Your task to perform on an android device: check battery use Image 0: 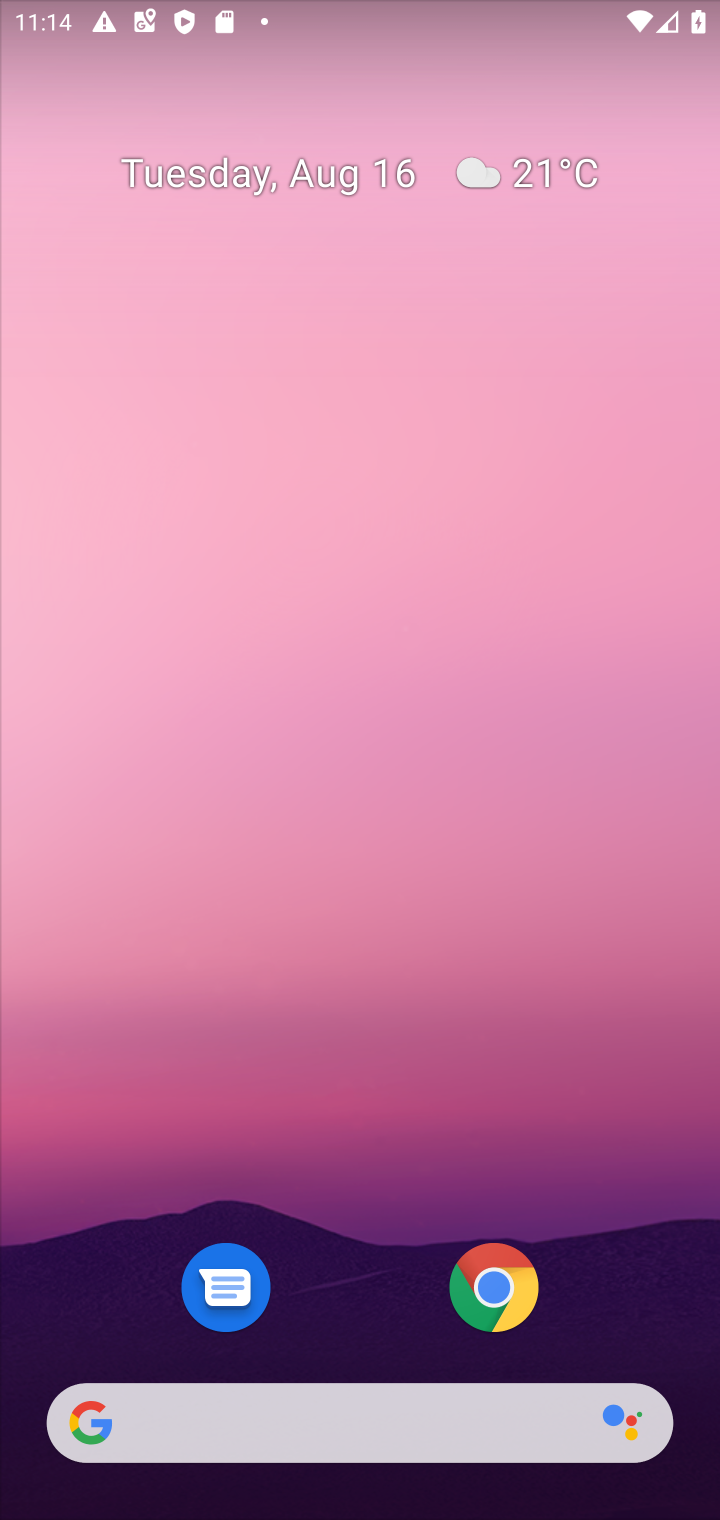
Step 0: drag from (633, 957) to (596, 270)
Your task to perform on an android device: check battery use Image 1: 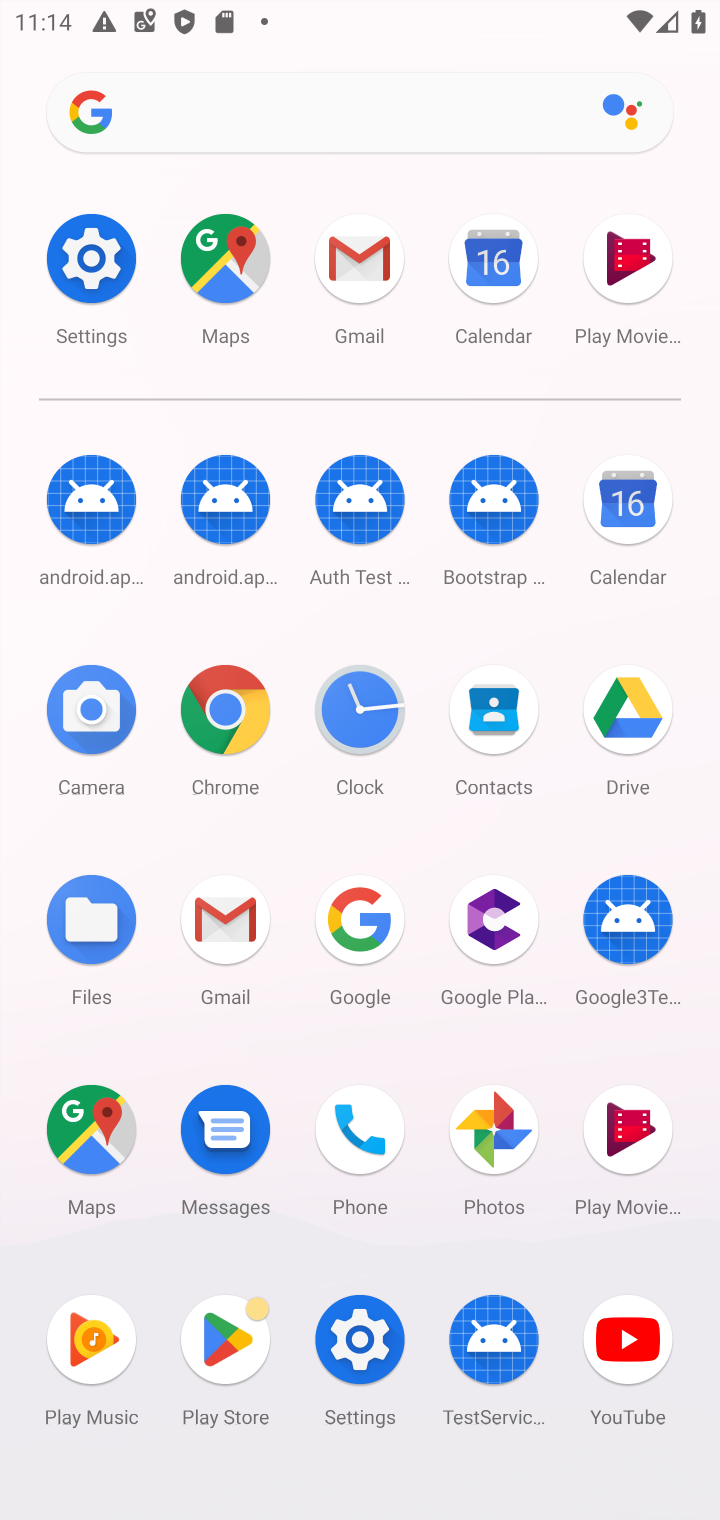
Step 1: click (361, 1344)
Your task to perform on an android device: check battery use Image 2: 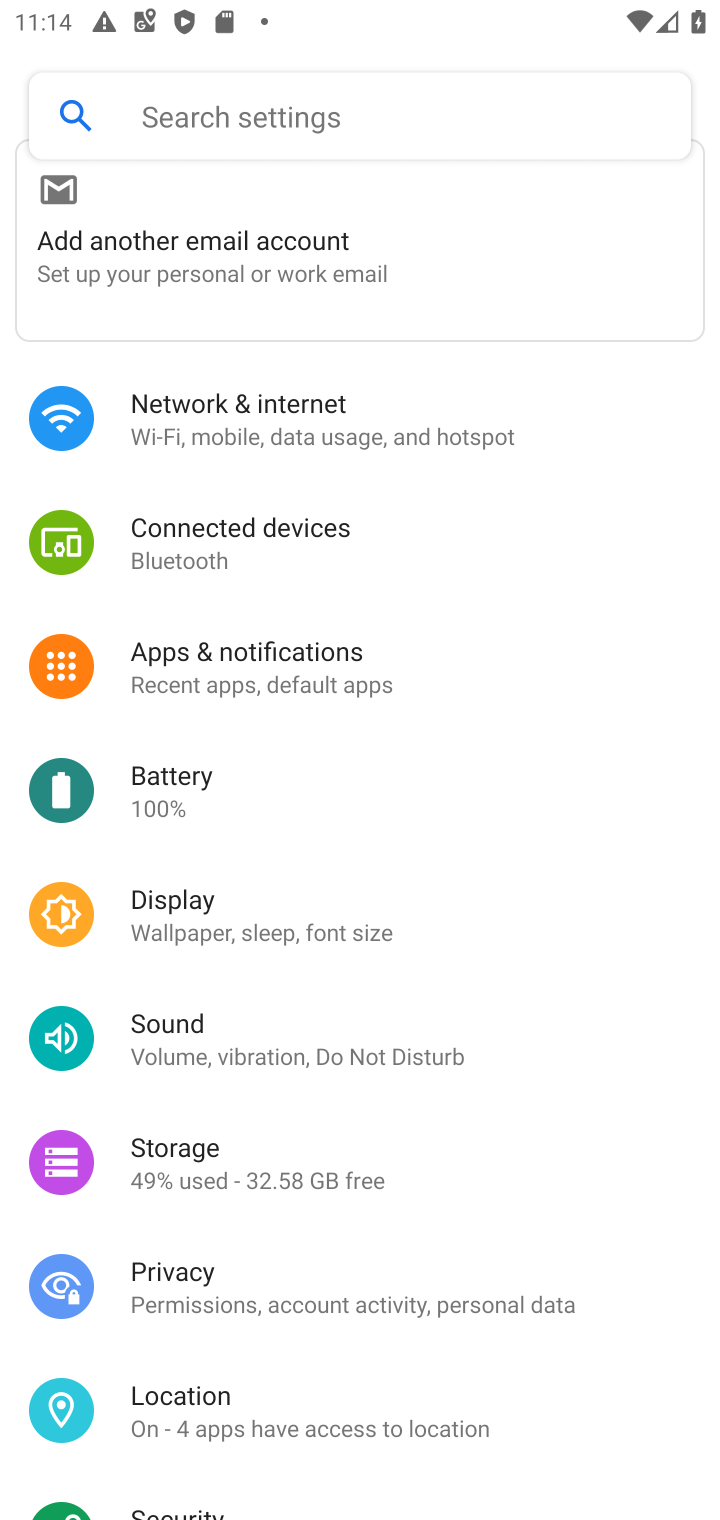
Step 2: click (165, 785)
Your task to perform on an android device: check battery use Image 3: 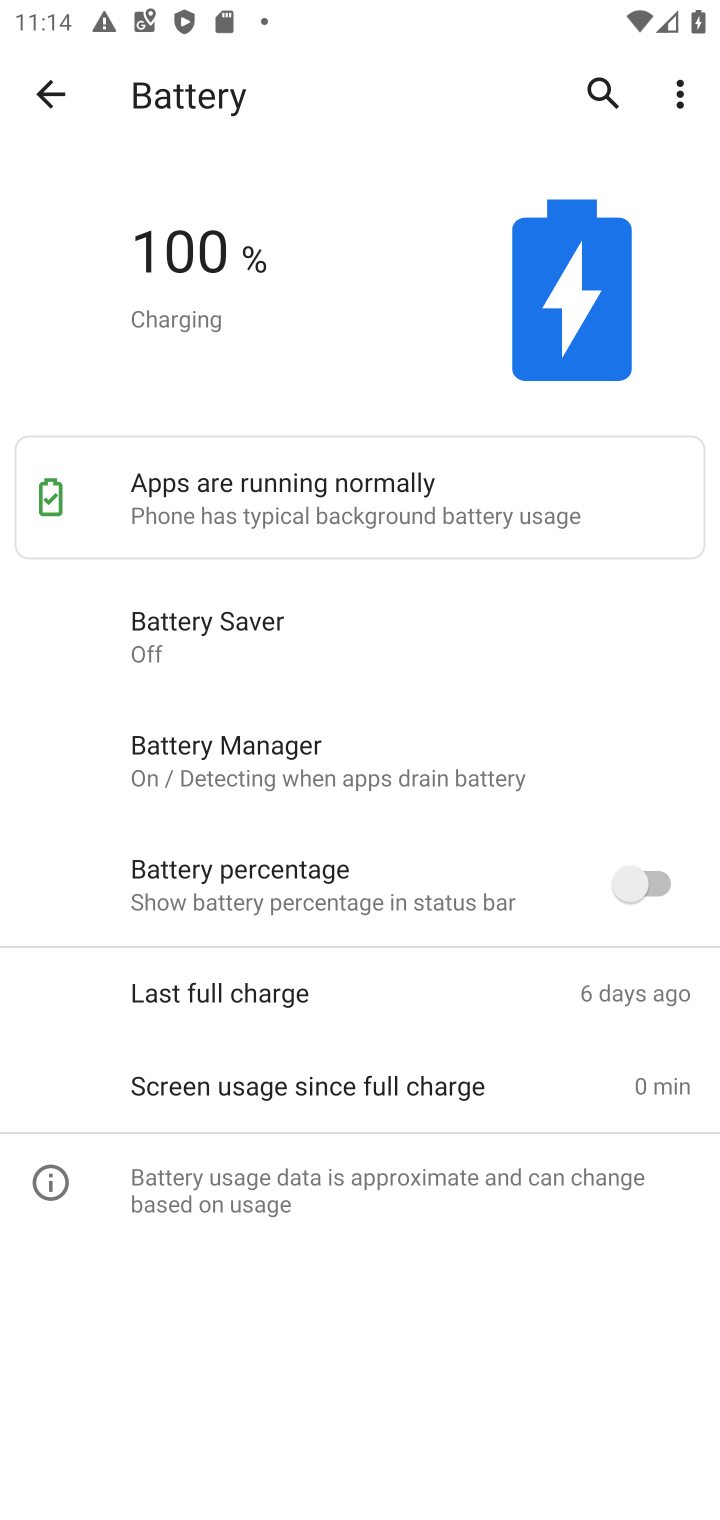
Step 3: click (669, 105)
Your task to perform on an android device: check battery use Image 4: 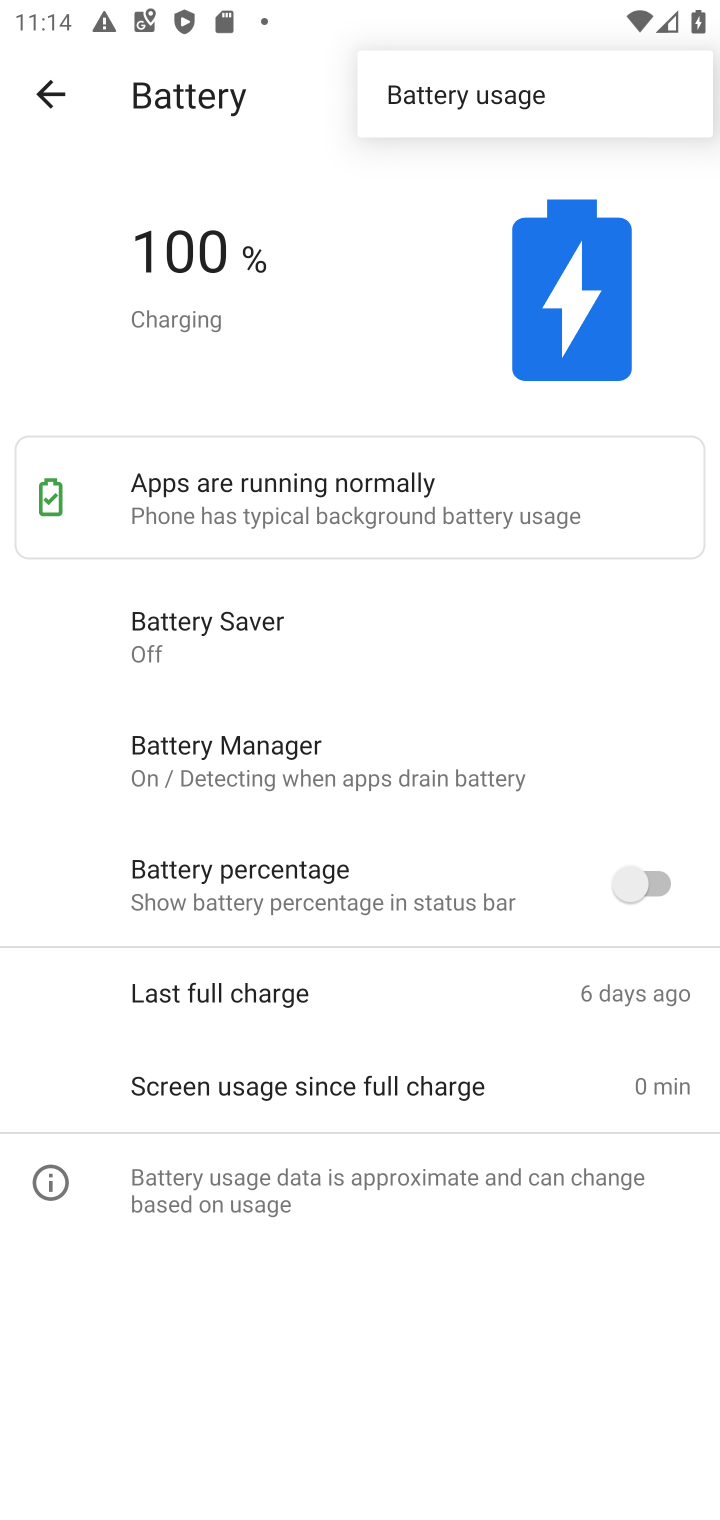
Step 4: click (445, 90)
Your task to perform on an android device: check battery use Image 5: 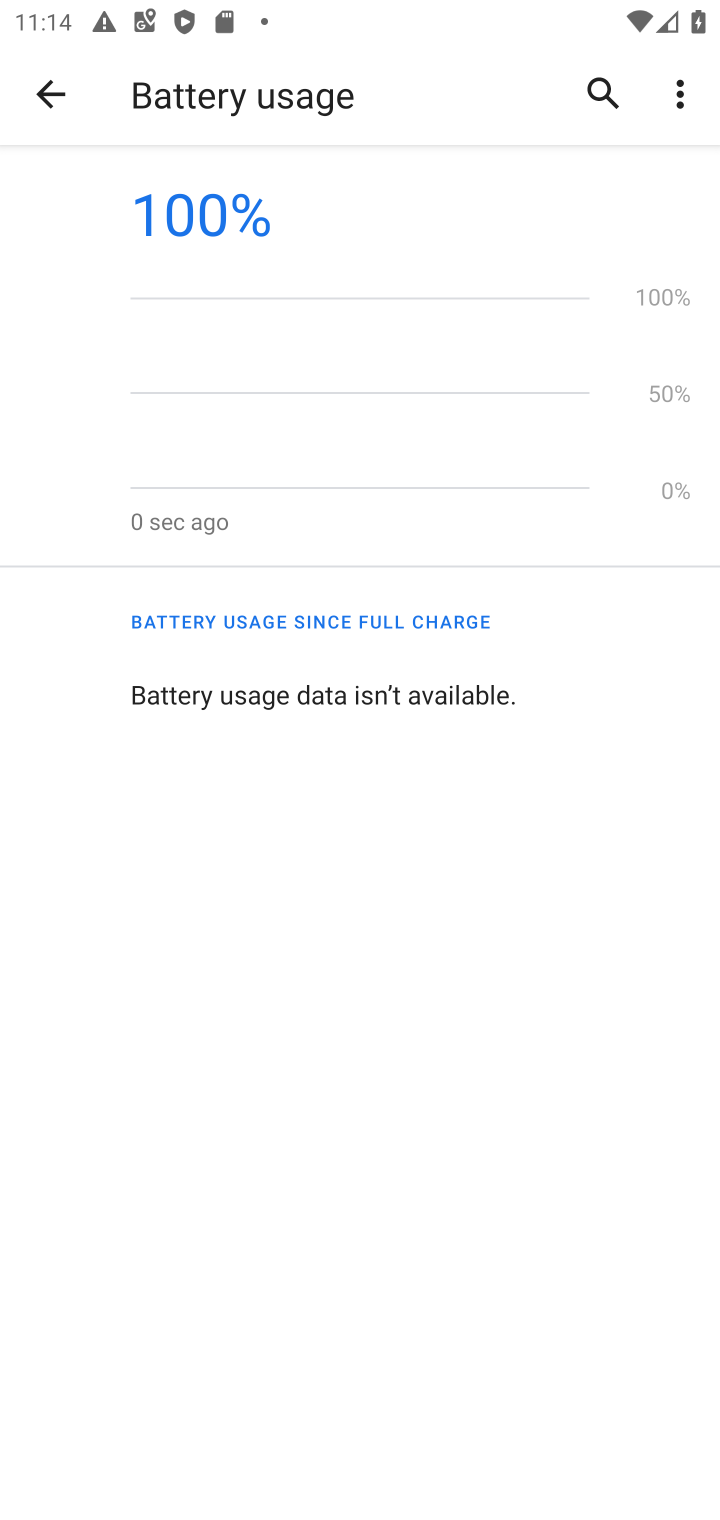
Step 5: task complete